Your task to perform on an android device: Open maps Image 0: 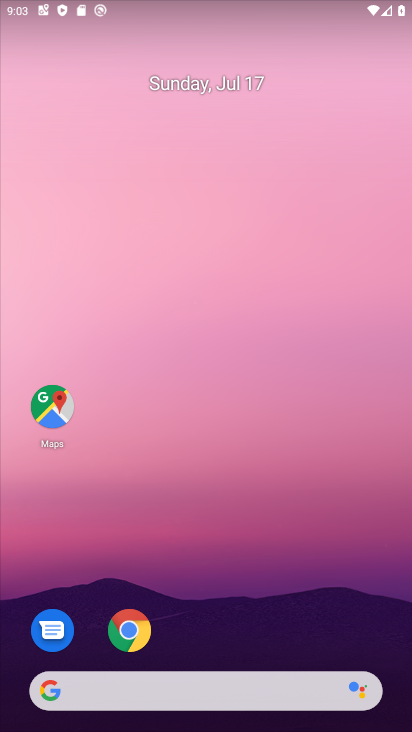
Step 0: drag from (310, 578) to (322, 192)
Your task to perform on an android device: Open maps Image 1: 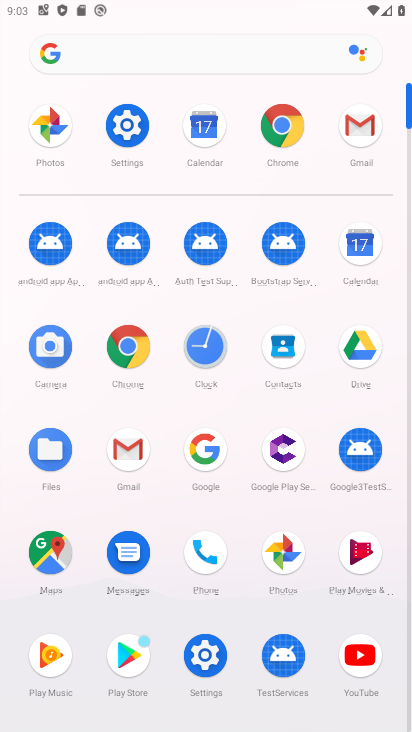
Step 1: click (43, 553)
Your task to perform on an android device: Open maps Image 2: 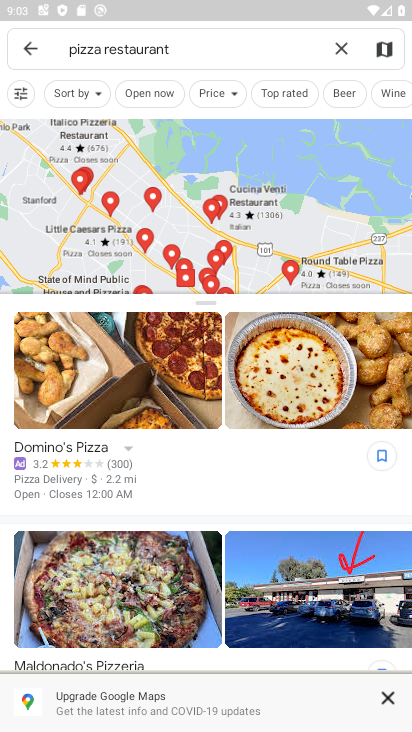
Step 2: task complete